Your task to perform on an android device: turn on data saver in the chrome app Image 0: 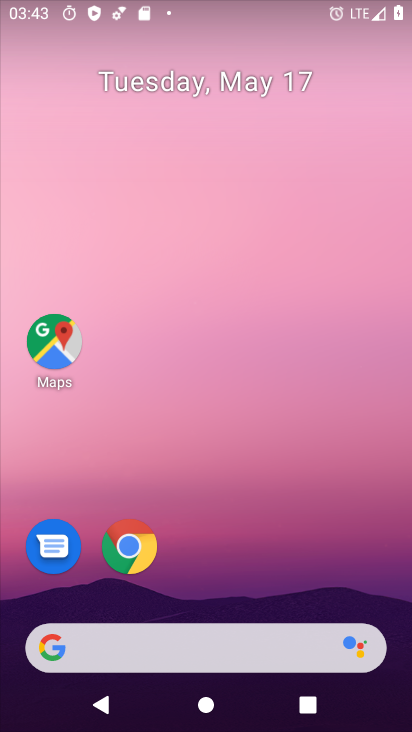
Step 0: press home button
Your task to perform on an android device: turn on data saver in the chrome app Image 1: 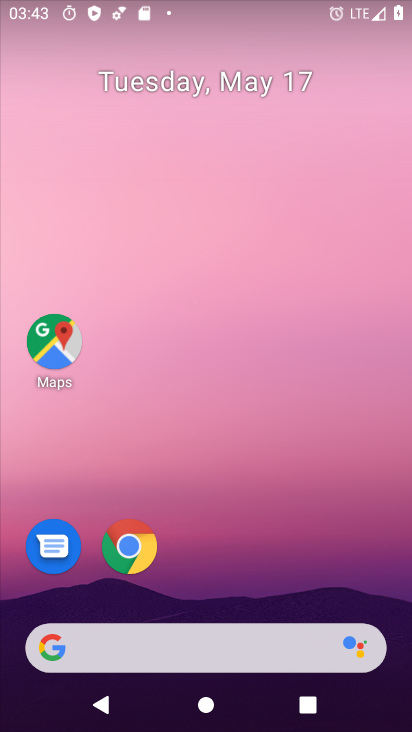
Step 1: click (127, 527)
Your task to perform on an android device: turn on data saver in the chrome app Image 2: 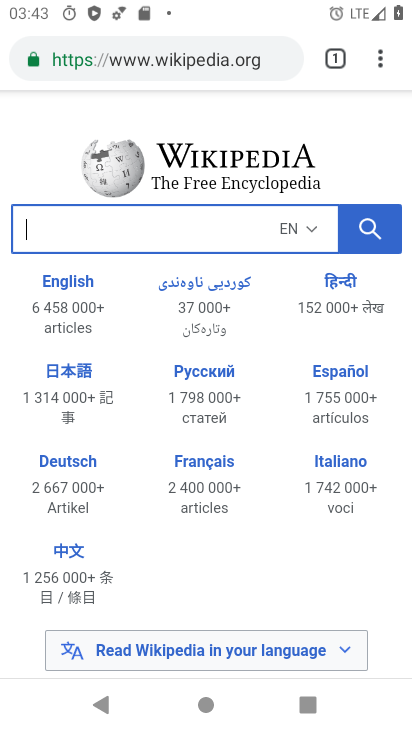
Step 2: drag from (373, 52) to (259, 556)
Your task to perform on an android device: turn on data saver in the chrome app Image 3: 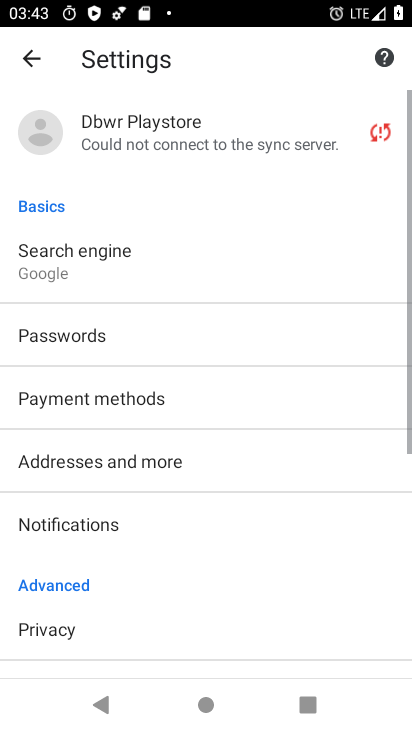
Step 3: drag from (181, 538) to (132, 128)
Your task to perform on an android device: turn on data saver in the chrome app Image 4: 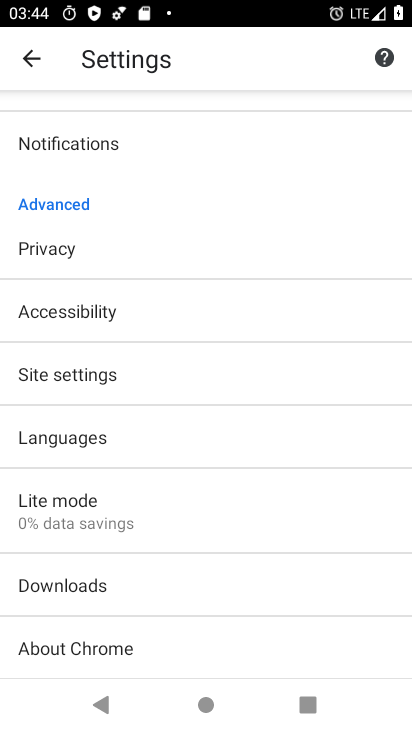
Step 4: click (77, 501)
Your task to perform on an android device: turn on data saver in the chrome app Image 5: 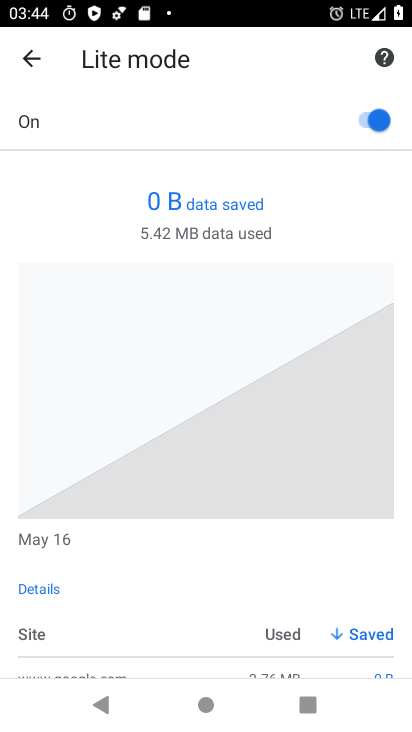
Step 5: task complete